Your task to perform on an android device: Open battery settings Image 0: 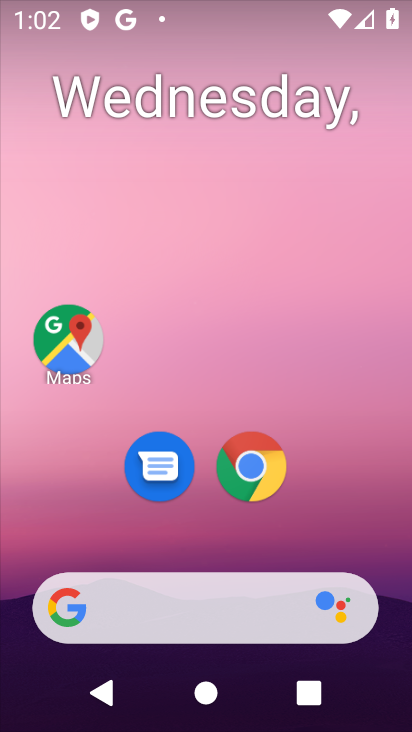
Step 0: drag from (198, 505) to (216, 176)
Your task to perform on an android device: Open battery settings Image 1: 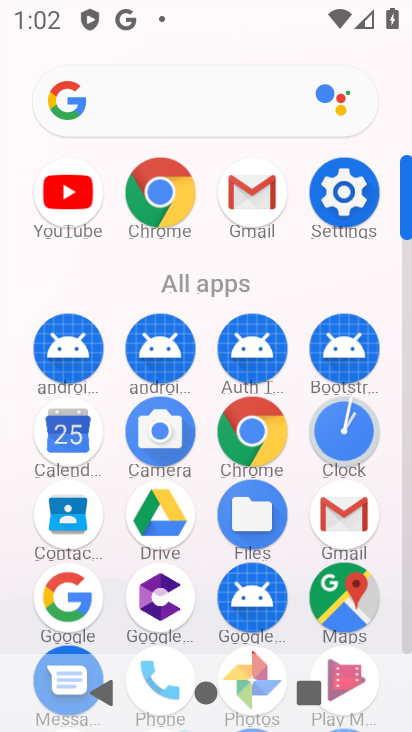
Step 1: click (323, 212)
Your task to perform on an android device: Open battery settings Image 2: 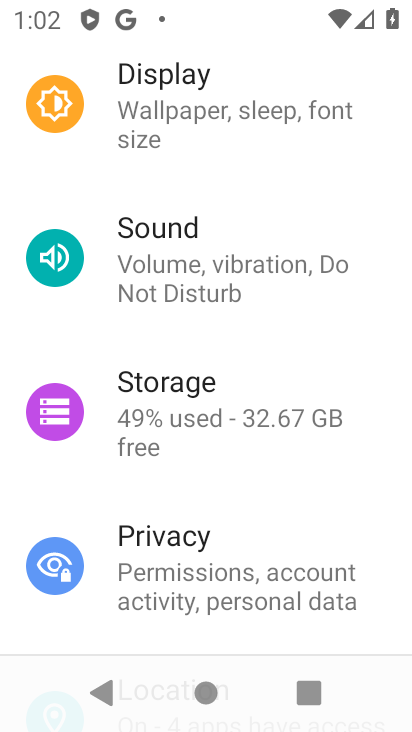
Step 2: drag from (289, 326) to (313, 579)
Your task to perform on an android device: Open battery settings Image 3: 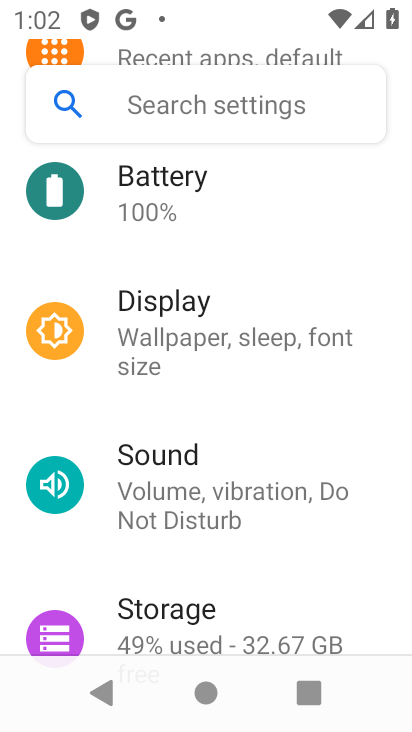
Step 3: click (227, 208)
Your task to perform on an android device: Open battery settings Image 4: 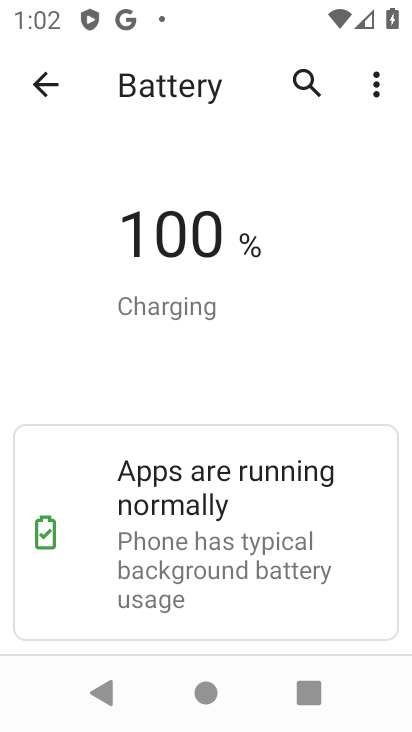
Step 4: task complete